Your task to perform on an android device: Go to Android settings Image 0: 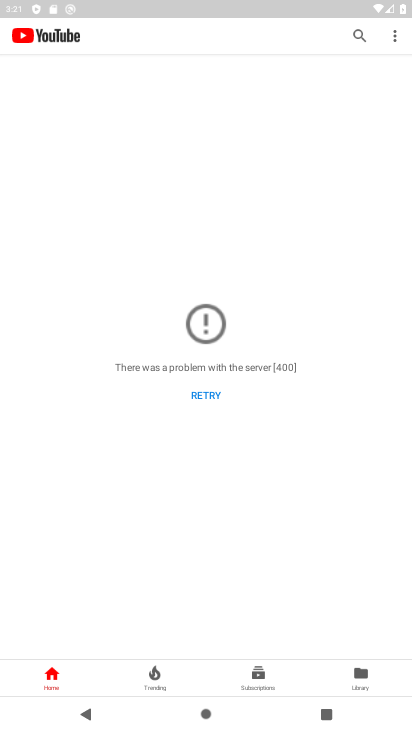
Step 0: press home button
Your task to perform on an android device: Go to Android settings Image 1: 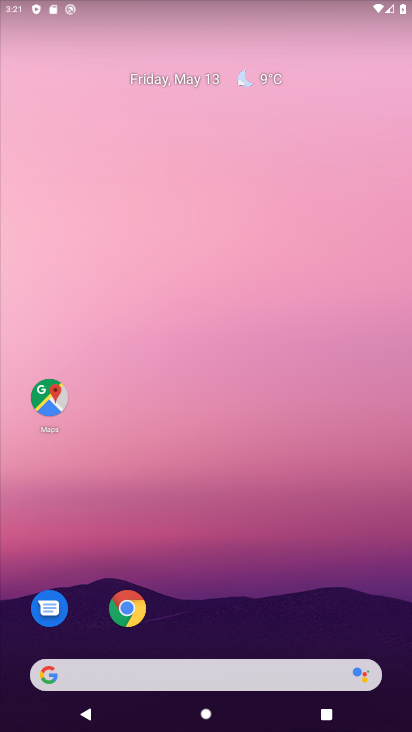
Step 1: drag from (209, 628) to (342, 167)
Your task to perform on an android device: Go to Android settings Image 2: 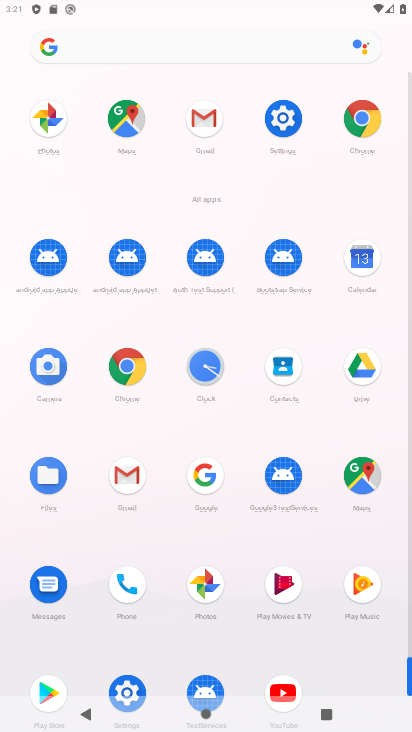
Step 2: drag from (160, 637) to (217, 489)
Your task to perform on an android device: Go to Android settings Image 3: 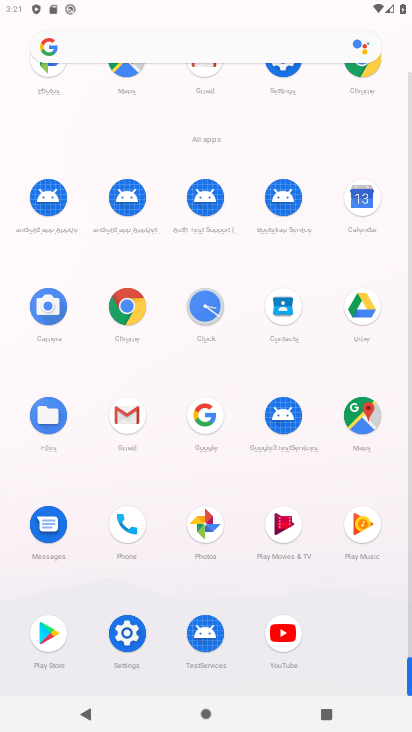
Step 3: click (127, 633)
Your task to perform on an android device: Go to Android settings Image 4: 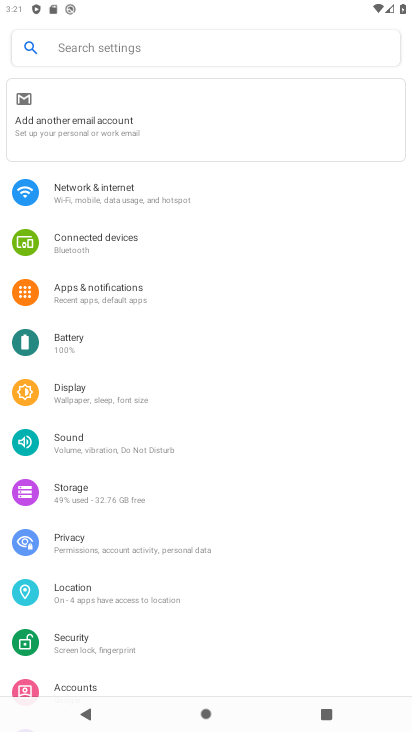
Step 4: task complete